Your task to perform on an android device: Open Youtube and go to "Your channel" Image 0: 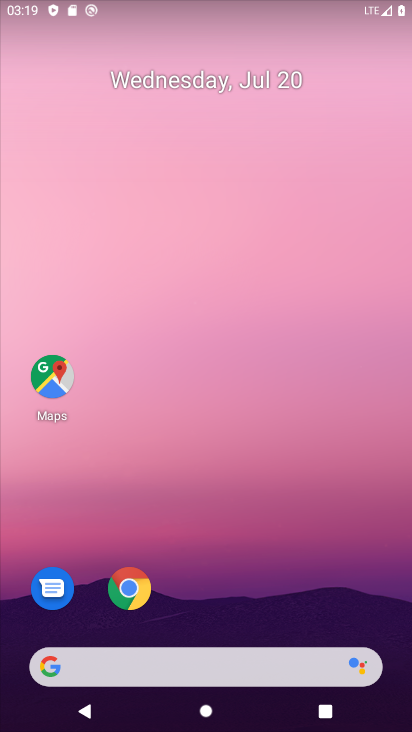
Step 0: drag from (403, 117) to (404, 405)
Your task to perform on an android device: Open Youtube and go to "Your channel" Image 1: 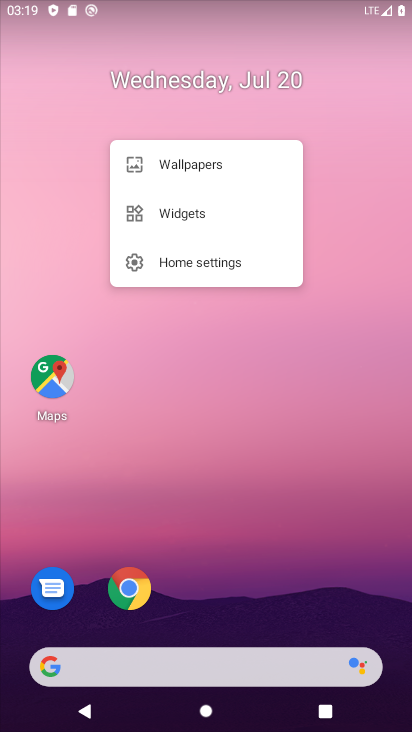
Step 1: drag from (154, 607) to (217, 346)
Your task to perform on an android device: Open Youtube and go to "Your channel" Image 2: 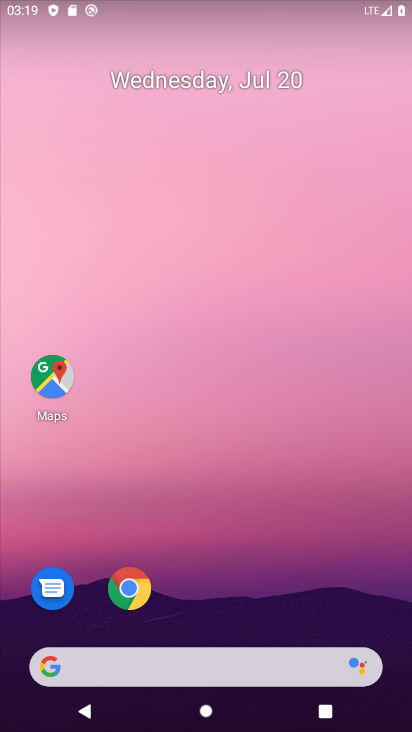
Step 2: drag from (179, 564) to (206, 47)
Your task to perform on an android device: Open Youtube and go to "Your channel" Image 3: 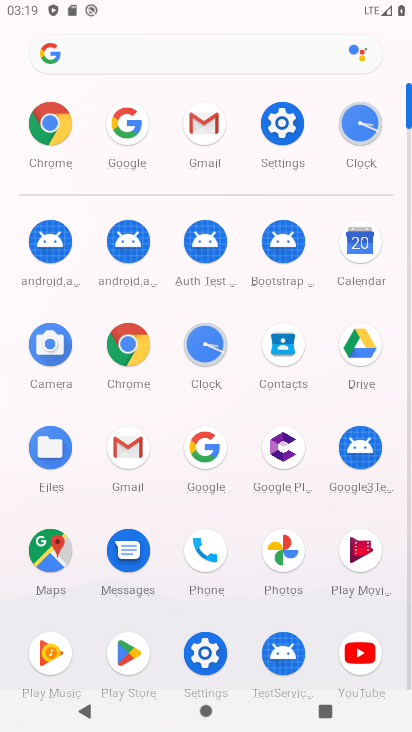
Step 3: click (356, 629)
Your task to perform on an android device: Open Youtube and go to "Your channel" Image 4: 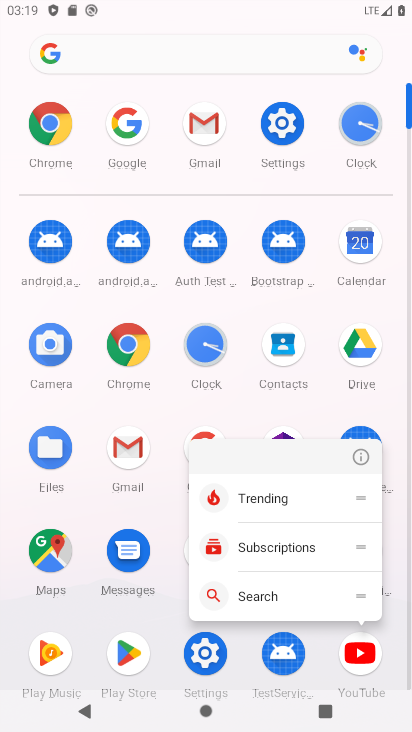
Step 4: click (354, 459)
Your task to perform on an android device: Open Youtube and go to "Your channel" Image 5: 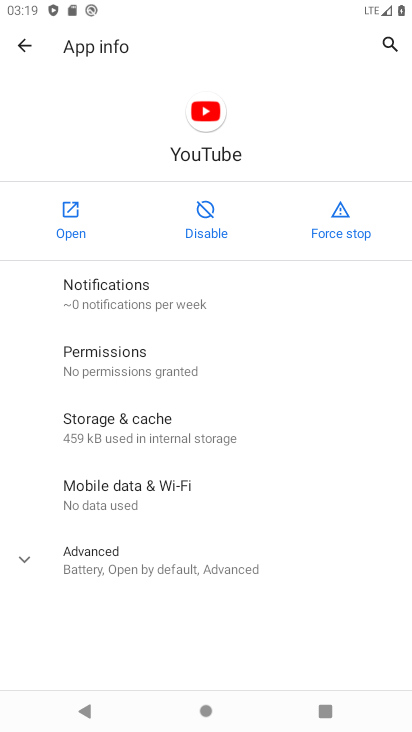
Step 5: click (75, 207)
Your task to perform on an android device: Open Youtube and go to "Your channel" Image 6: 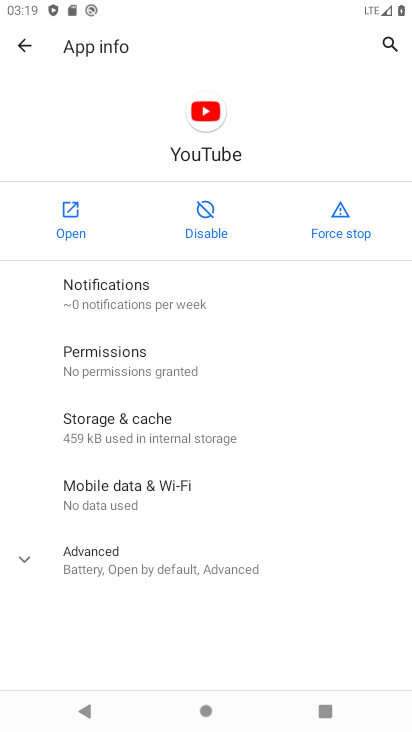
Step 6: click (75, 207)
Your task to perform on an android device: Open Youtube and go to "Your channel" Image 7: 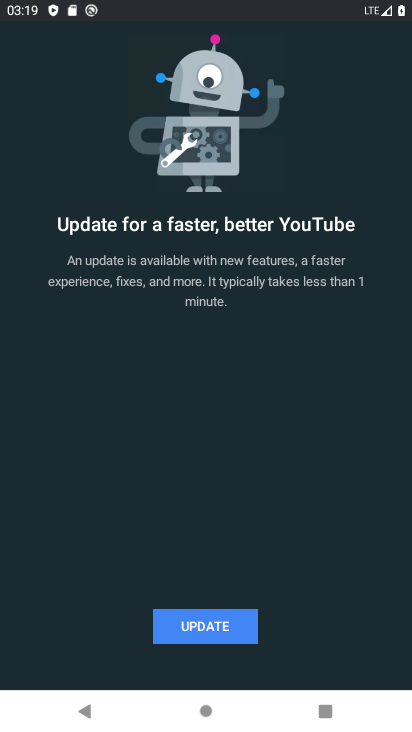
Step 7: task complete